Your task to perform on an android device: toggle airplane mode Image 0: 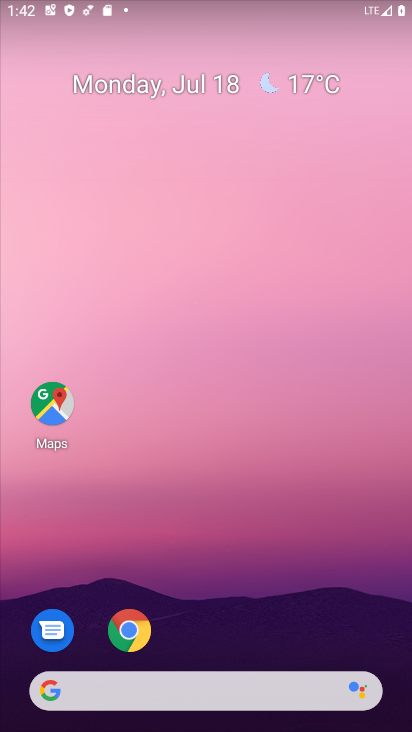
Step 0: drag from (226, 606) to (210, 50)
Your task to perform on an android device: toggle airplane mode Image 1: 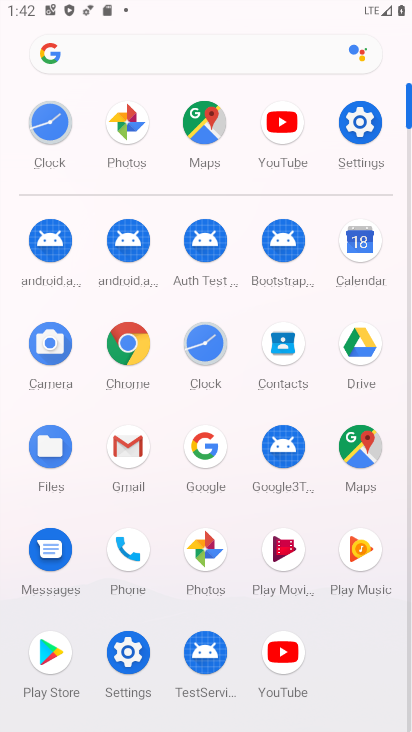
Step 1: click (362, 124)
Your task to perform on an android device: toggle airplane mode Image 2: 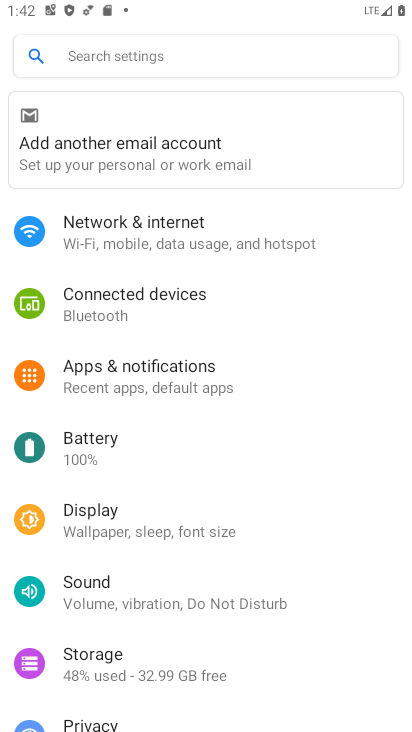
Step 2: click (248, 231)
Your task to perform on an android device: toggle airplane mode Image 3: 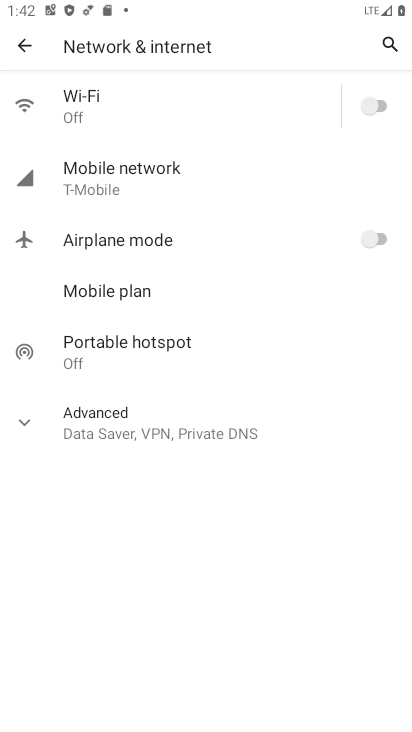
Step 3: click (372, 234)
Your task to perform on an android device: toggle airplane mode Image 4: 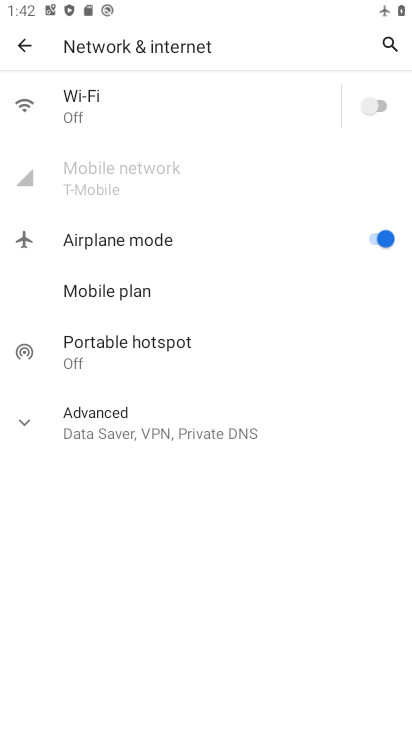
Step 4: task complete